Your task to perform on an android device: Is it going to rain this weekend? Image 0: 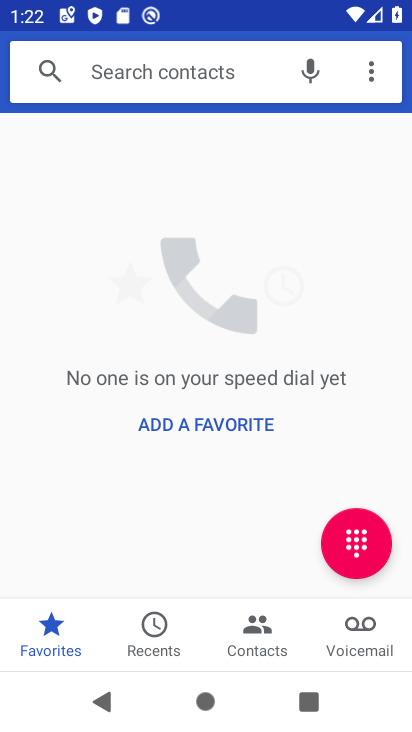
Step 0: press home button
Your task to perform on an android device: Is it going to rain this weekend? Image 1: 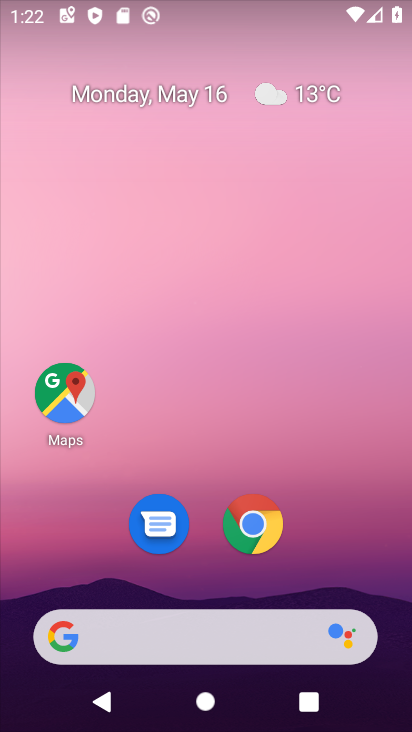
Step 1: click (313, 92)
Your task to perform on an android device: Is it going to rain this weekend? Image 2: 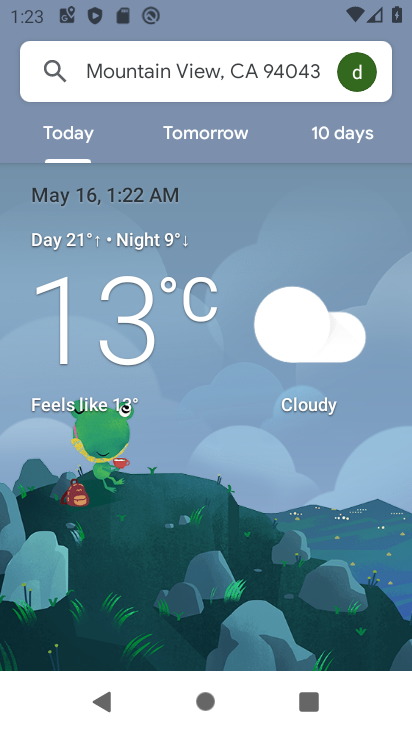
Step 2: click (339, 127)
Your task to perform on an android device: Is it going to rain this weekend? Image 3: 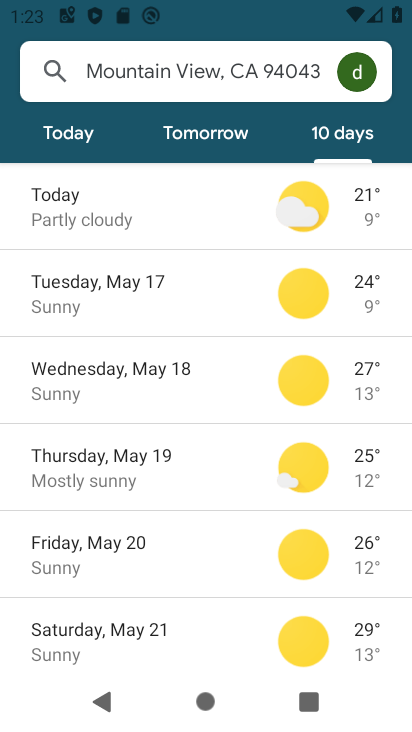
Step 3: click (116, 623)
Your task to perform on an android device: Is it going to rain this weekend? Image 4: 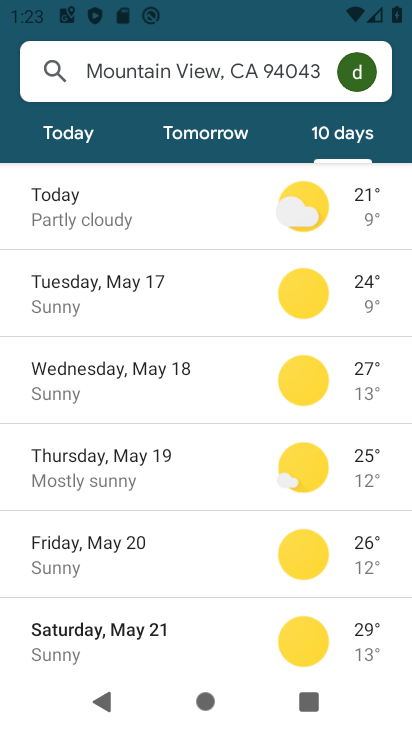
Step 4: task complete